Your task to perform on an android device: allow cookies in the chrome app Image 0: 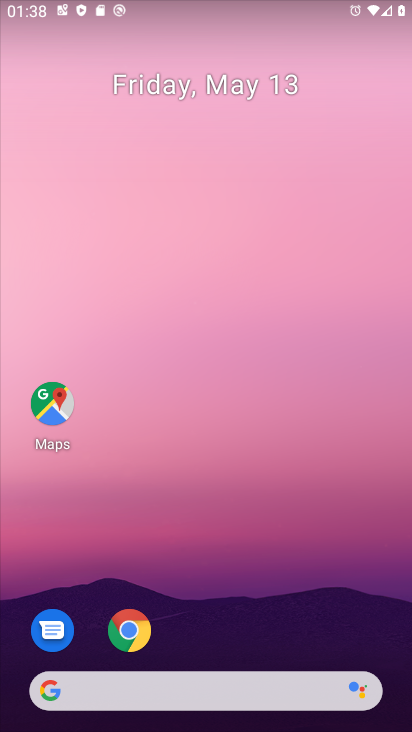
Step 0: drag from (208, 709) to (254, 158)
Your task to perform on an android device: allow cookies in the chrome app Image 1: 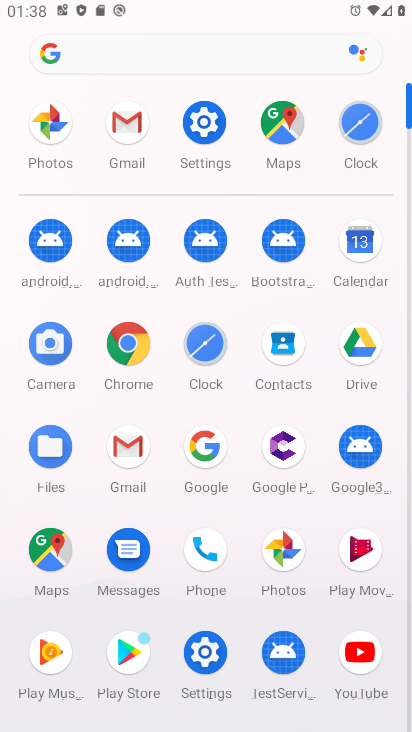
Step 1: click (125, 359)
Your task to perform on an android device: allow cookies in the chrome app Image 2: 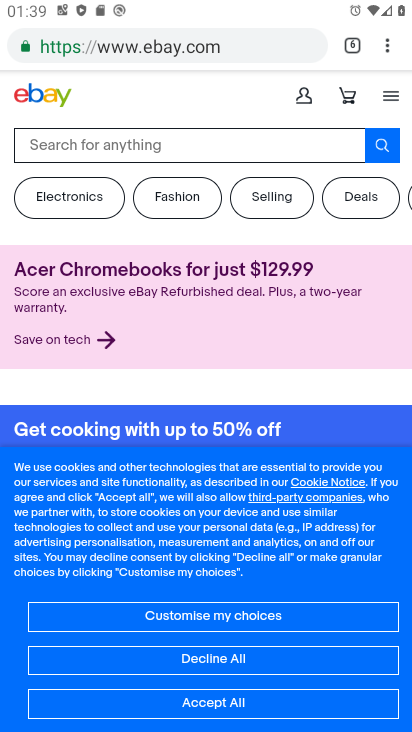
Step 2: click (386, 46)
Your task to perform on an android device: allow cookies in the chrome app Image 3: 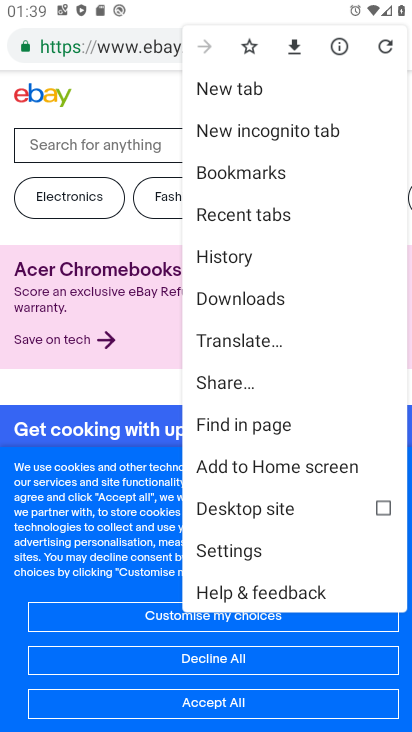
Step 3: click (237, 551)
Your task to perform on an android device: allow cookies in the chrome app Image 4: 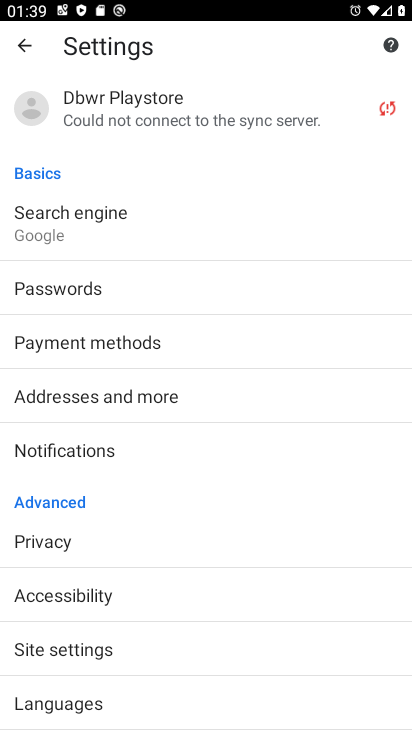
Step 4: click (67, 635)
Your task to perform on an android device: allow cookies in the chrome app Image 5: 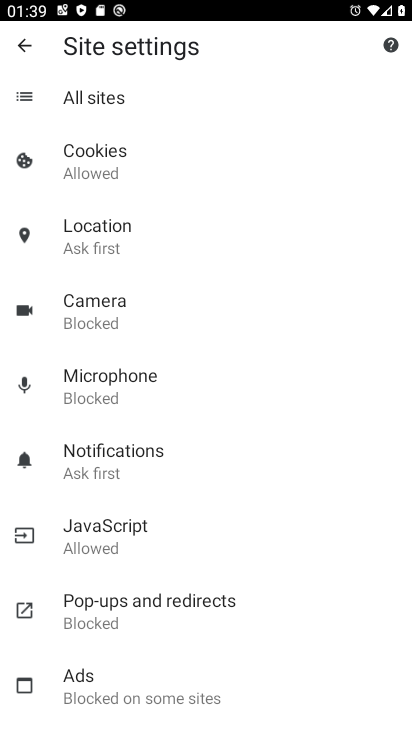
Step 5: click (150, 158)
Your task to perform on an android device: allow cookies in the chrome app Image 6: 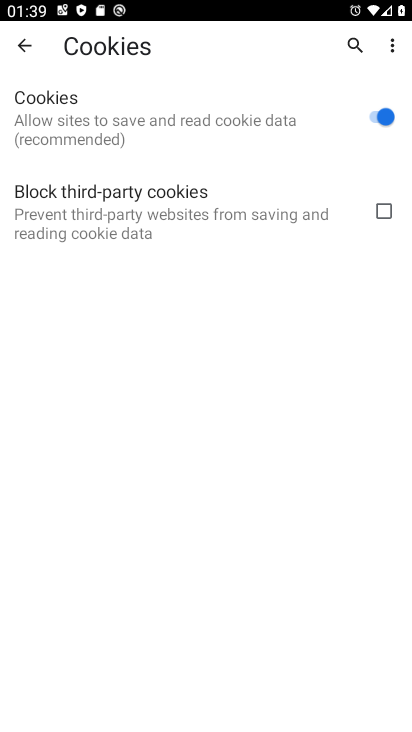
Step 6: click (324, 123)
Your task to perform on an android device: allow cookies in the chrome app Image 7: 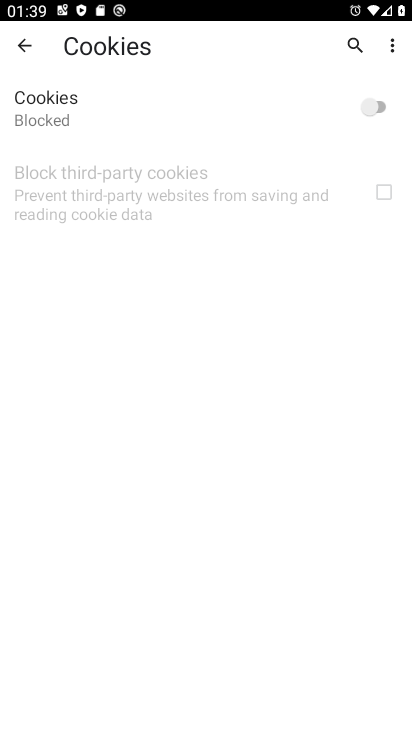
Step 7: task complete